Your task to perform on an android device: uninstall "PlayWell" Image 0: 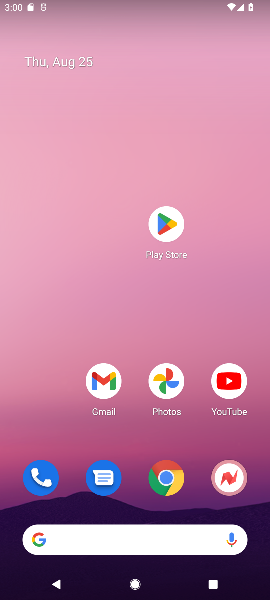
Step 0: click (167, 221)
Your task to perform on an android device: uninstall "PlayWell" Image 1: 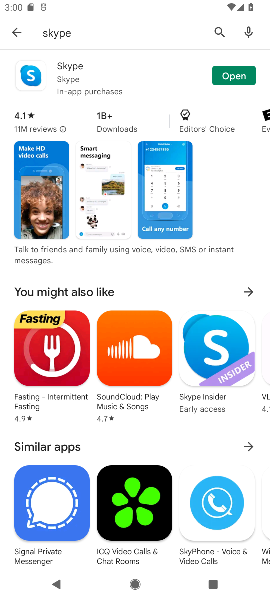
Step 1: click (218, 27)
Your task to perform on an android device: uninstall "PlayWell" Image 2: 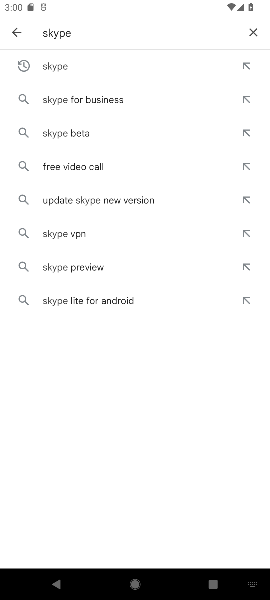
Step 2: click (250, 29)
Your task to perform on an android device: uninstall "PlayWell" Image 3: 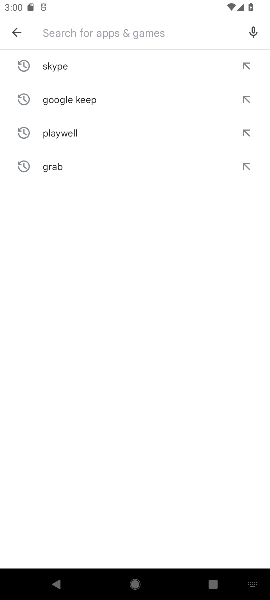
Step 3: type "PlayWell"
Your task to perform on an android device: uninstall "PlayWell" Image 4: 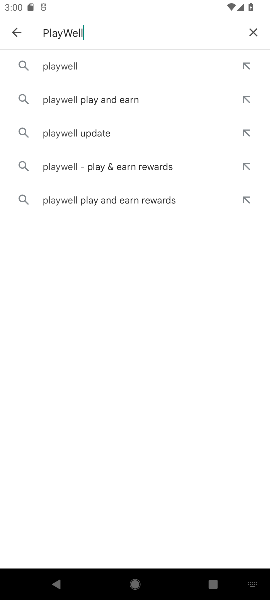
Step 4: click (61, 57)
Your task to perform on an android device: uninstall "PlayWell" Image 5: 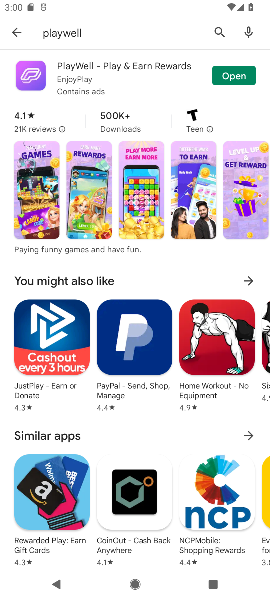
Step 5: click (73, 60)
Your task to perform on an android device: uninstall "PlayWell" Image 6: 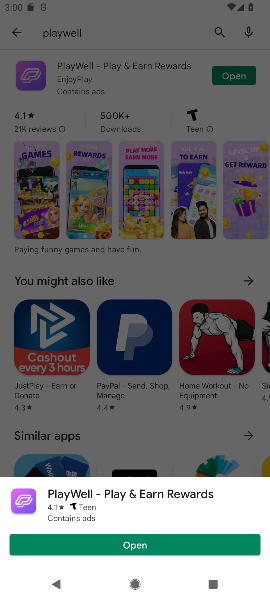
Step 6: click (56, 496)
Your task to perform on an android device: uninstall "PlayWell" Image 7: 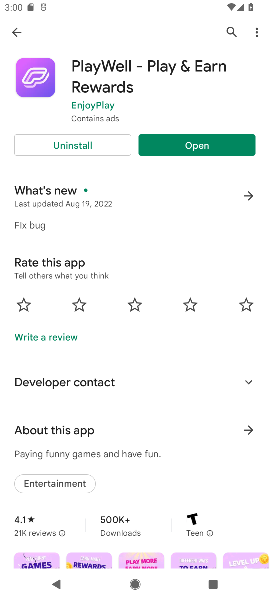
Step 7: click (91, 143)
Your task to perform on an android device: uninstall "PlayWell" Image 8: 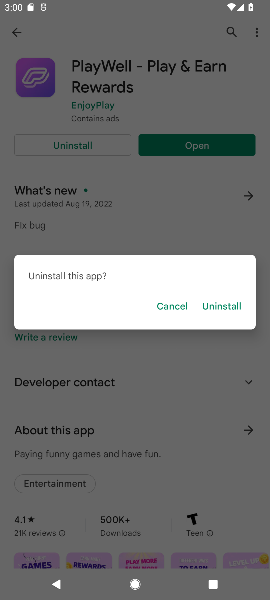
Step 8: click (220, 306)
Your task to perform on an android device: uninstall "PlayWell" Image 9: 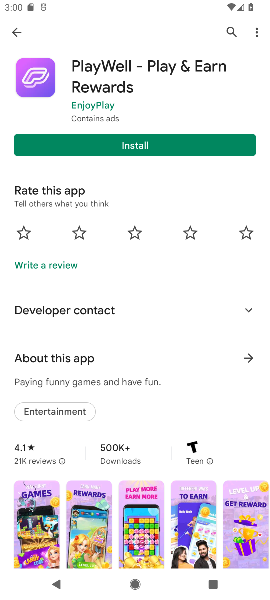
Step 9: task complete